Your task to perform on an android device: check the backup settings in the google photos Image 0: 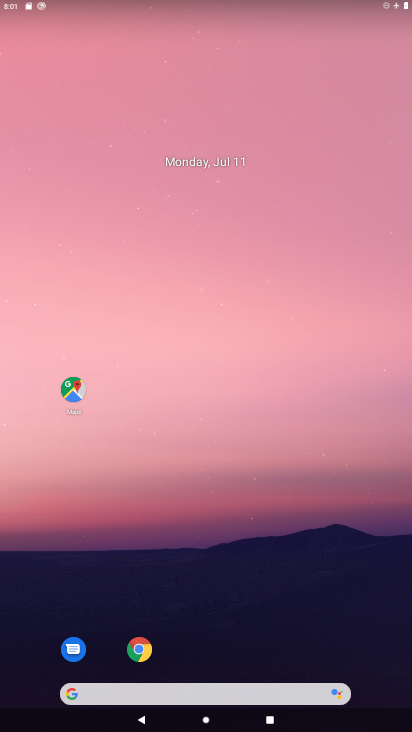
Step 0: drag from (192, 689) to (281, 211)
Your task to perform on an android device: check the backup settings in the google photos Image 1: 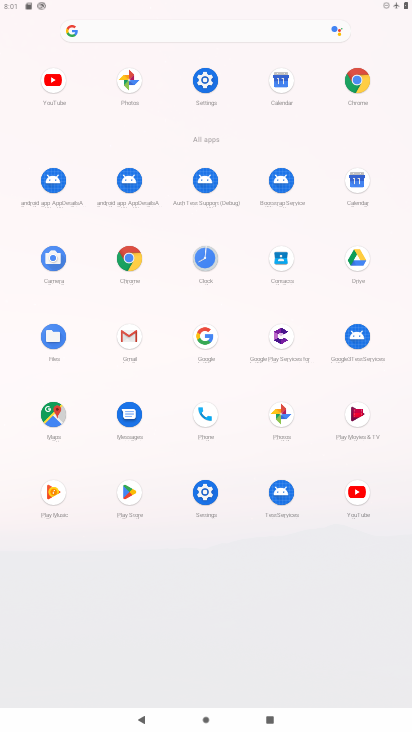
Step 1: click (131, 82)
Your task to perform on an android device: check the backup settings in the google photos Image 2: 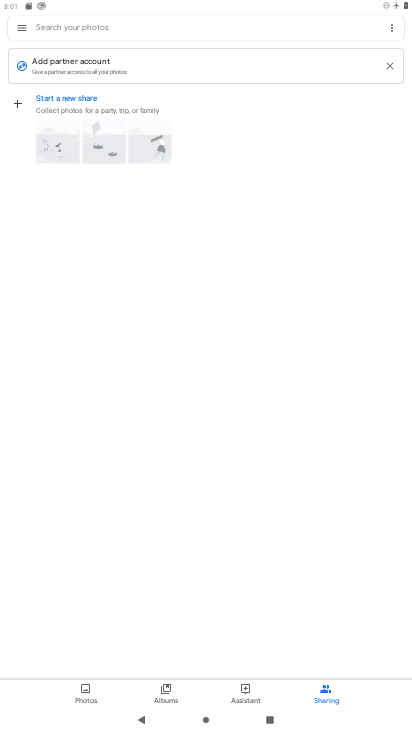
Step 2: click (22, 20)
Your task to perform on an android device: check the backup settings in the google photos Image 3: 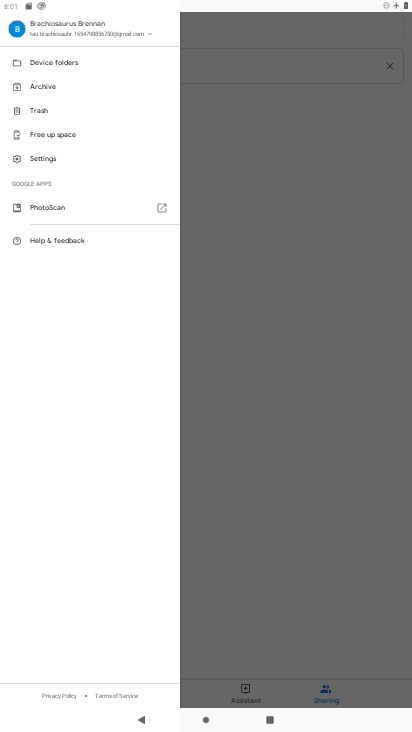
Step 3: click (52, 160)
Your task to perform on an android device: check the backup settings in the google photos Image 4: 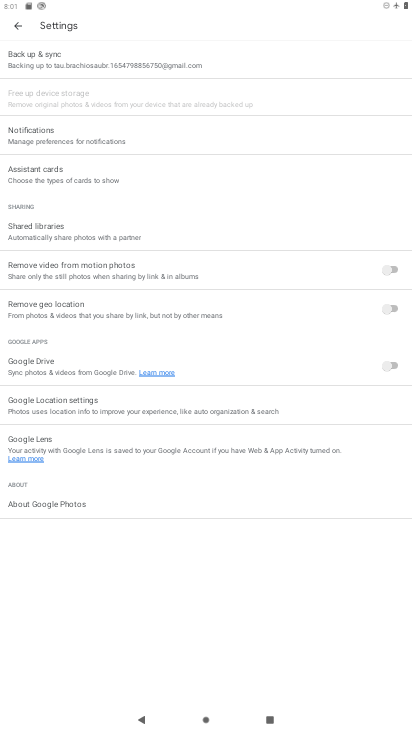
Step 4: click (131, 65)
Your task to perform on an android device: check the backup settings in the google photos Image 5: 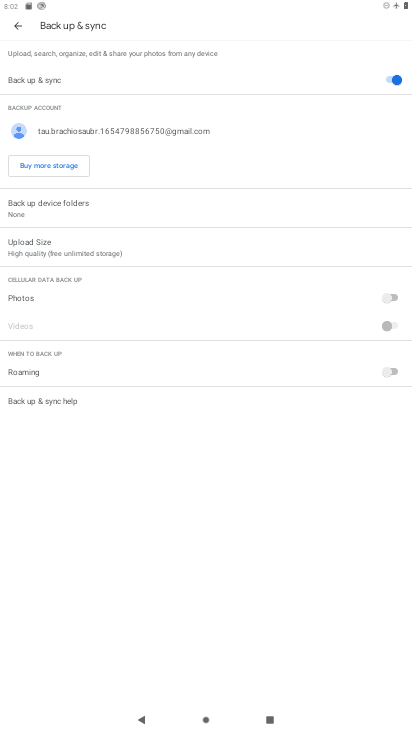
Step 5: task complete